Your task to perform on an android device: change timer sound Image 0: 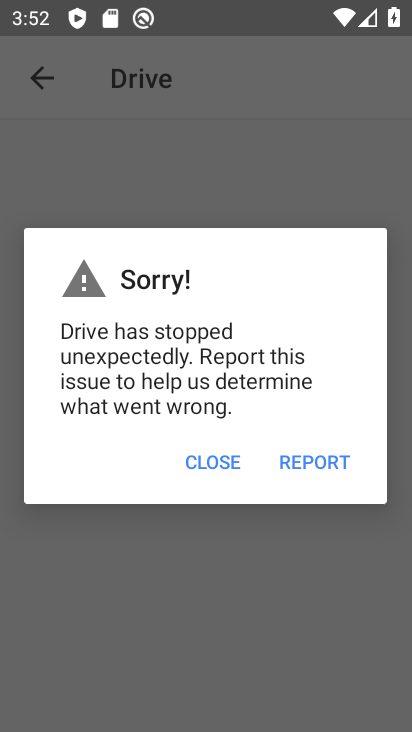
Step 0: press home button
Your task to perform on an android device: change timer sound Image 1: 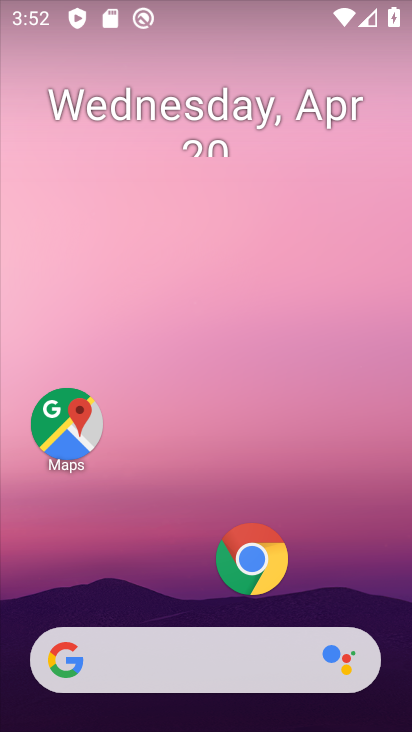
Step 1: drag from (104, 501) to (117, 167)
Your task to perform on an android device: change timer sound Image 2: 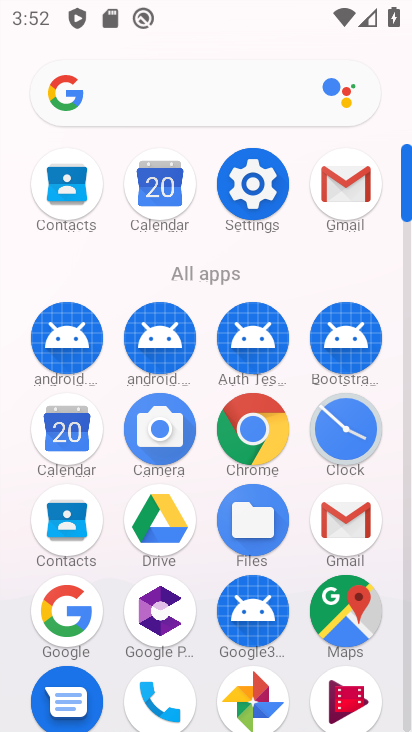
Step 2: drag from (194, 643) to (191, 490)
Your task to perform on an android device: change timer sound Image 3: 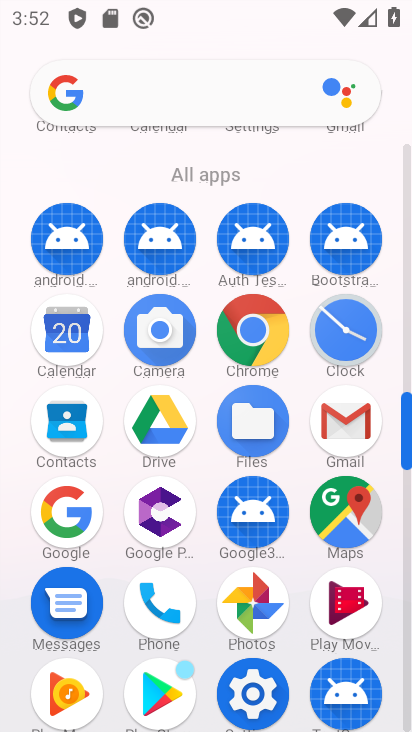
Step 3: click (260, 684)
Your task to perform on an android device: change timer sound Image 4: 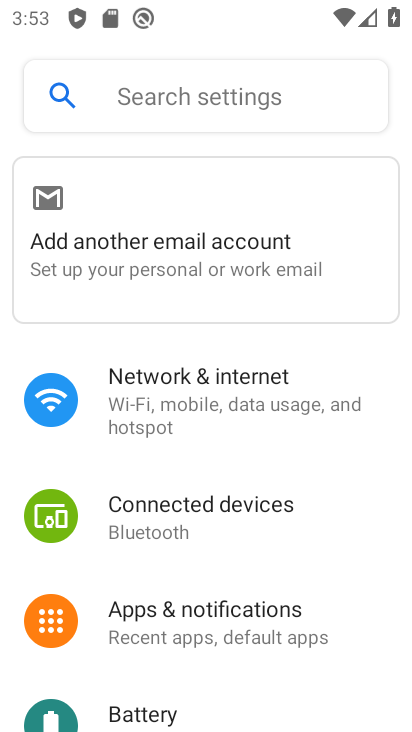
Step 4: drag from (197, 335) to (257, 164)
Your task to perform on an android device: change timer sound Image 5: 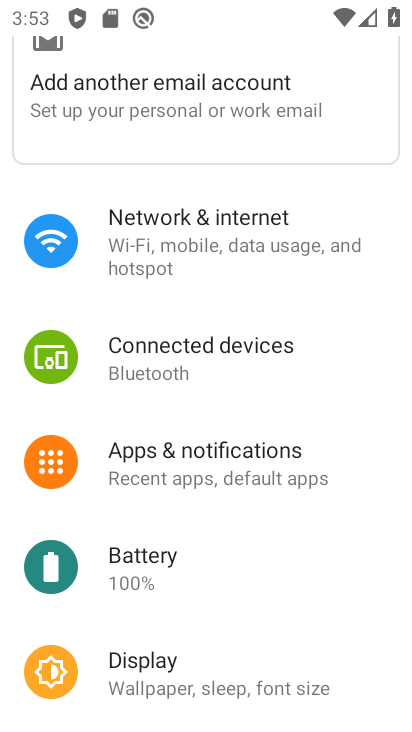
Step 5: drag from (143, 622) to (216, 345)
Your task to perform on an android device: change timer sound Image 6: 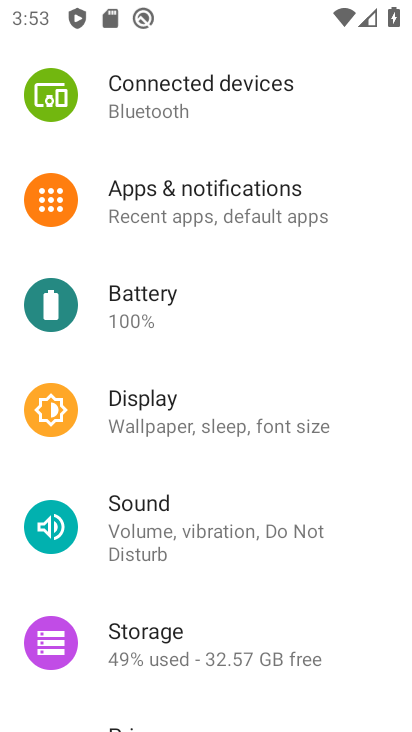
Step 6: drag from (164, 674) to (236, 418)
Your task to perform on an android device: change timer sound Image 7: 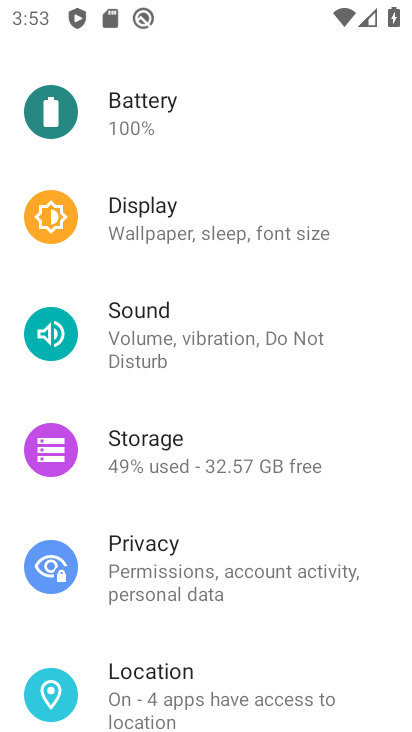
Step 7: drag from (186, 605) to (264, 359)
Your task to perform on an android device: change timer sound Image 8: 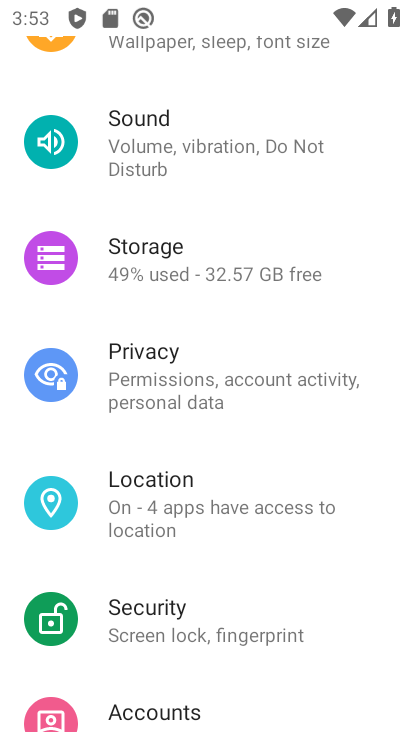
Step 8: click (165, 146)
Your task to perform on an android device: change timer sound Image 9: 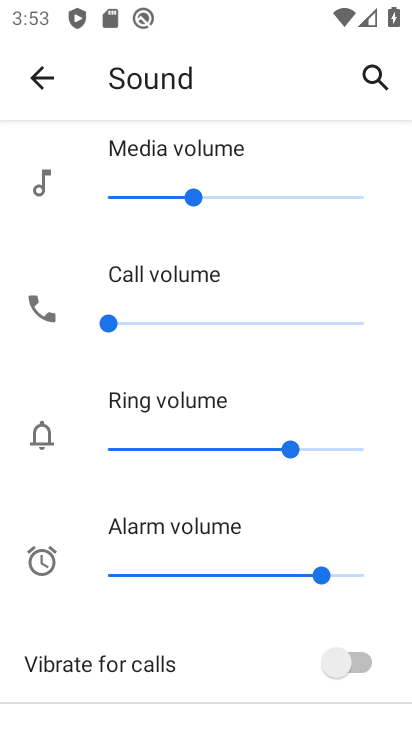
Step 9: task complete